Your task to perform on an android device: Search for a new highlighter Image 0: 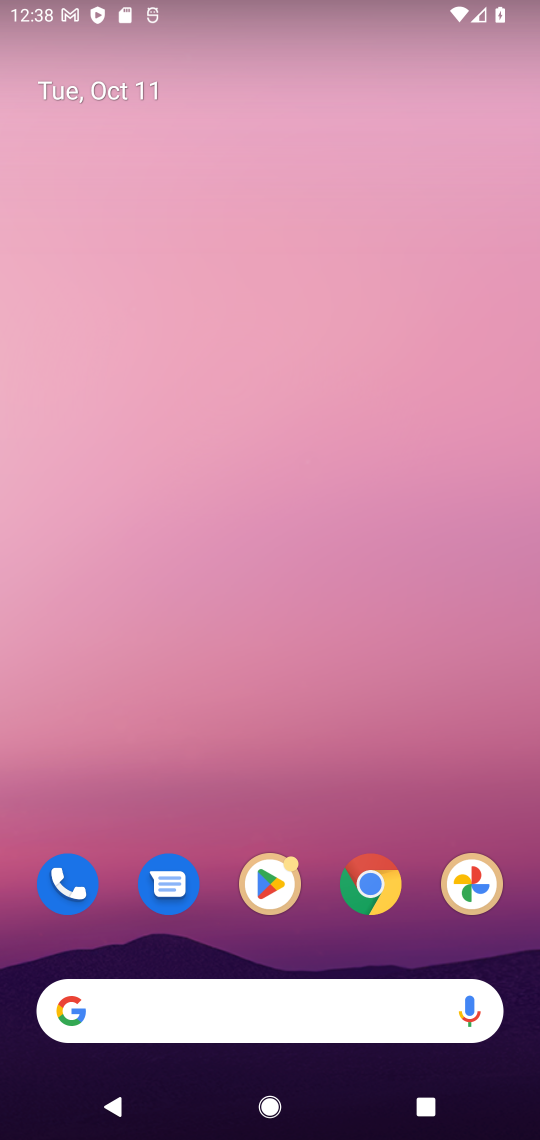
Step 0: drag from (290, 781) to (224, 372)
Your task to perform on an android device: Search for a new highlighter Image 1: 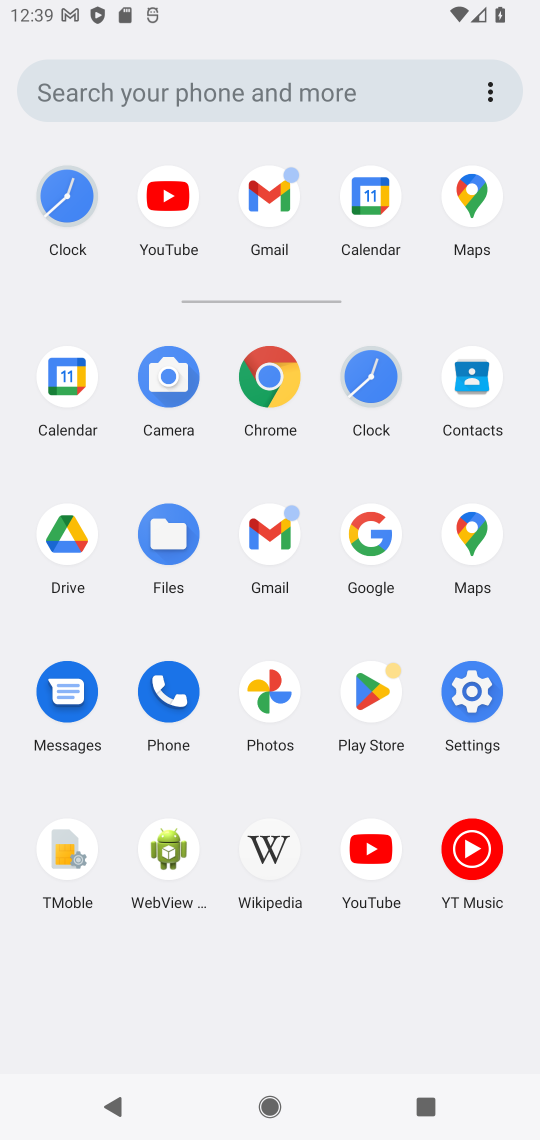
Step 1: click (388, 527)
Your task to perform on an android device: Search for a new highlighter Image 2: 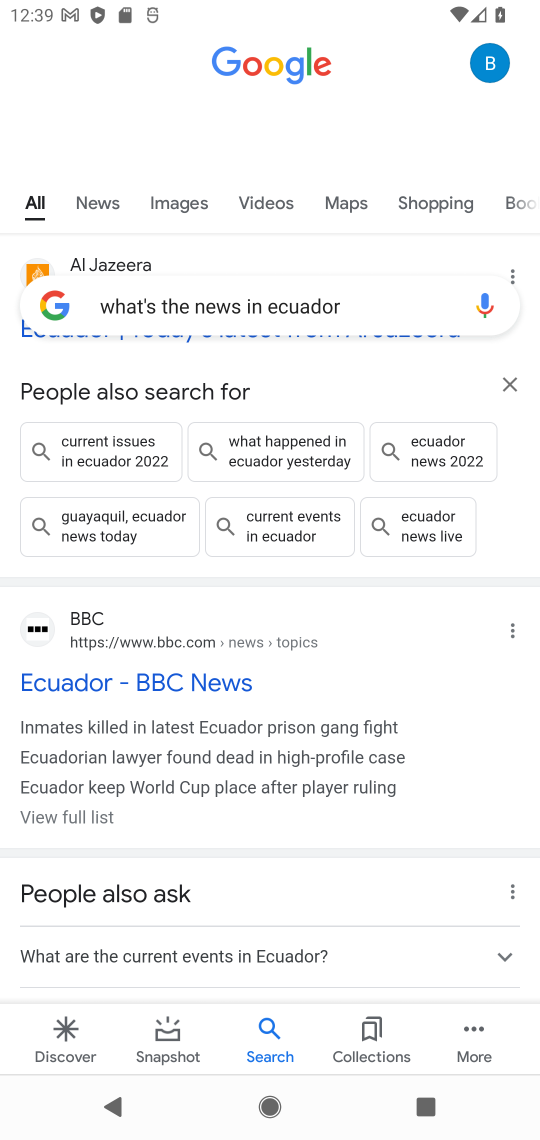
Step 2: click (223, 304)
Your task to perform on an android device: Search for a new highlighter Image 3: 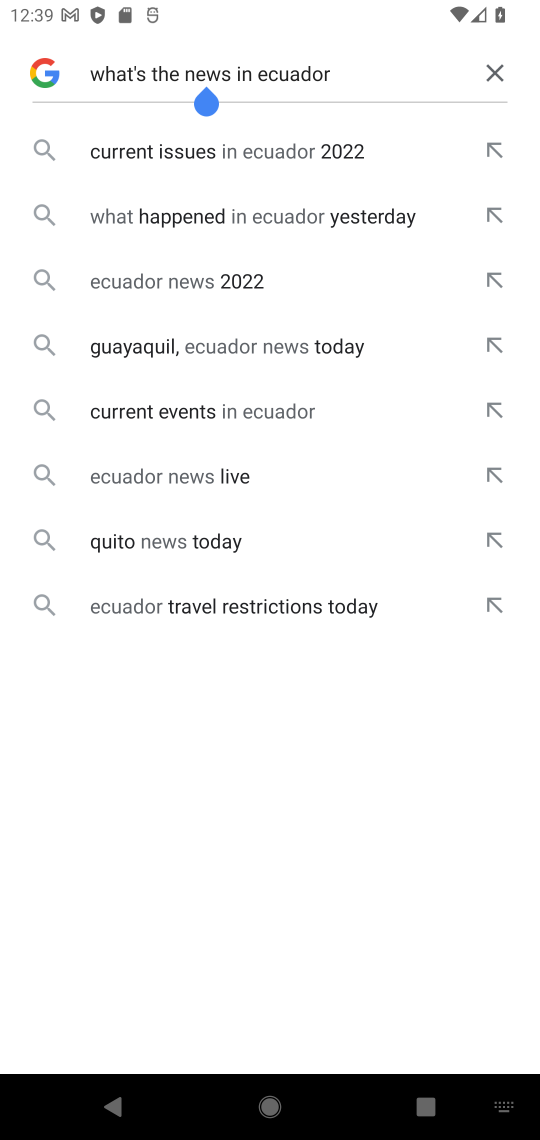
Step 3: click (492, 61)
Your task to perform on an android device: Search for a new highlighter Image 4: 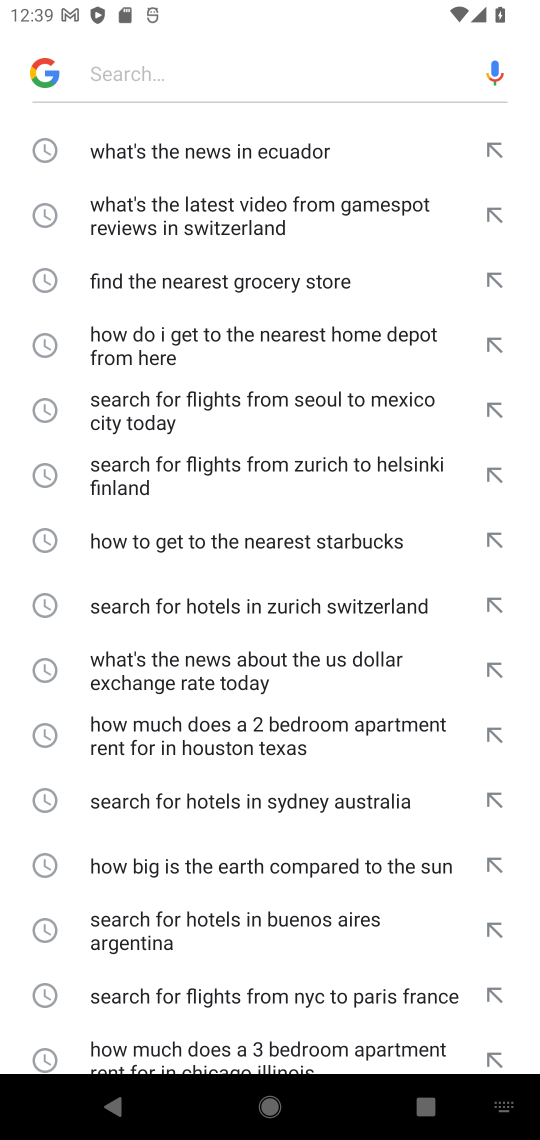
Step 4: type "Search for a new highlighter"
Your task to perform on an android device: Search for a new highlighter Image 5: 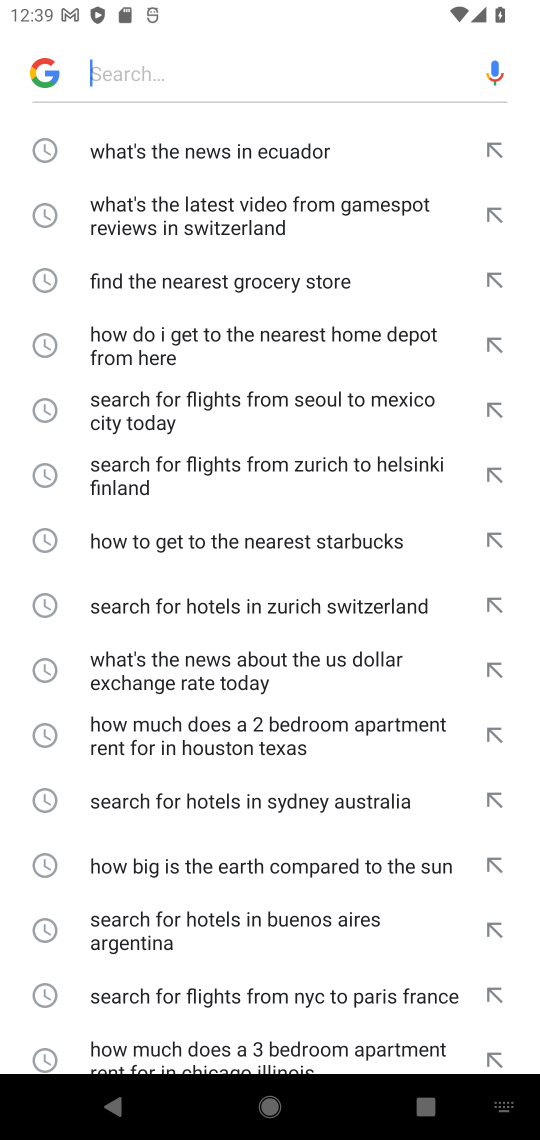
Step 5: click (254, 142)
Your task to perform on an android device: Search for a new highlighter Image 6: 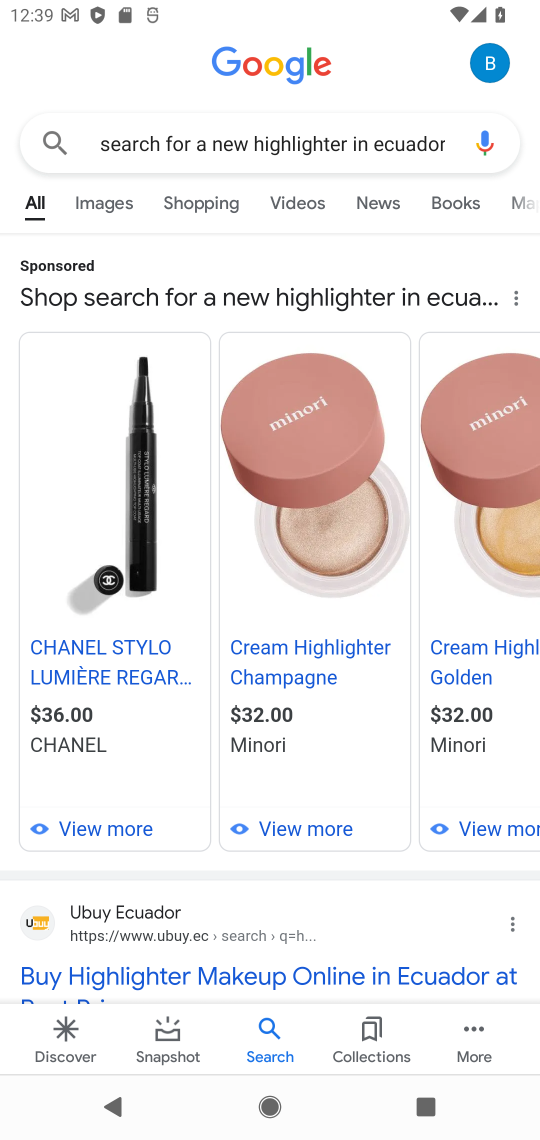
Step 6: task complete